Your task to perform on an android device: manage bookmarks in the chrome app Image 0: 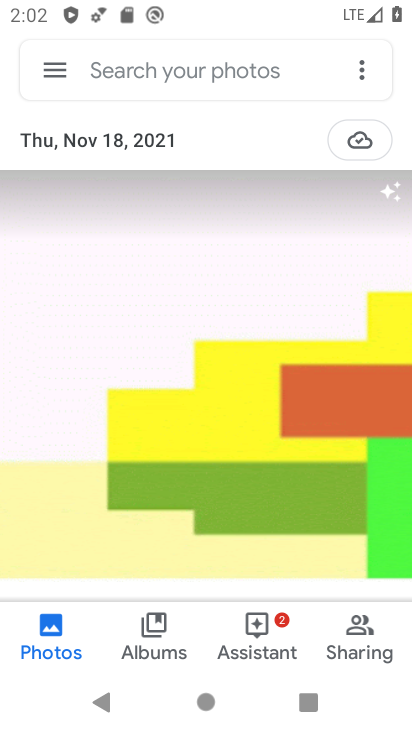
Step 0: press home button
Your task to perform on an android device: manage bookmarks in the chrome app Image 1: 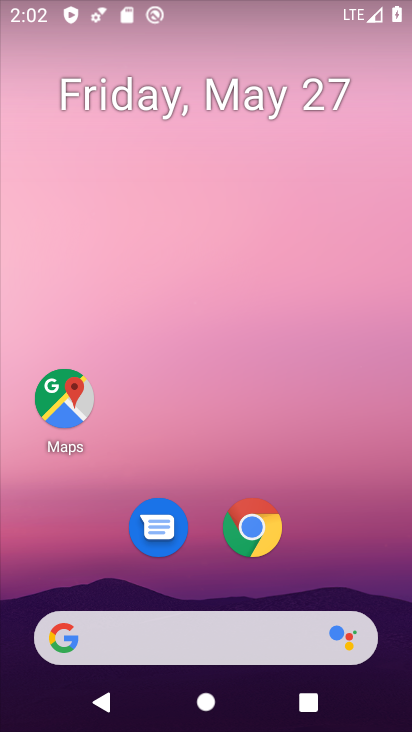
Step 1: click (255, 526)
Your task to perform on an android device: manage bookmarks in the chrome app Image 2: 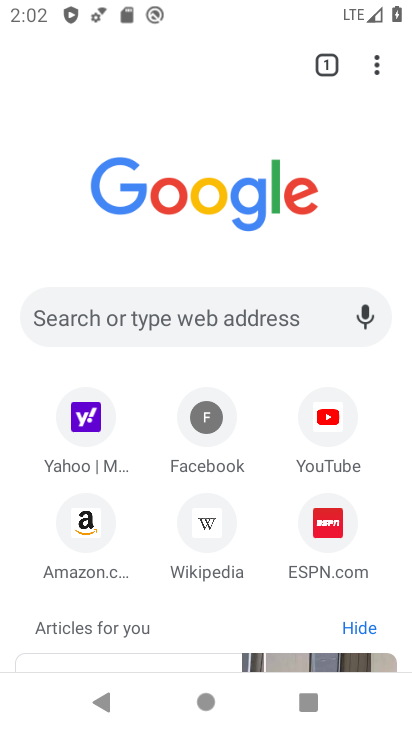
Step 2: click (374, 58)
Your task to perform on an android device: manage bookmarks in the chrome app Image 3: 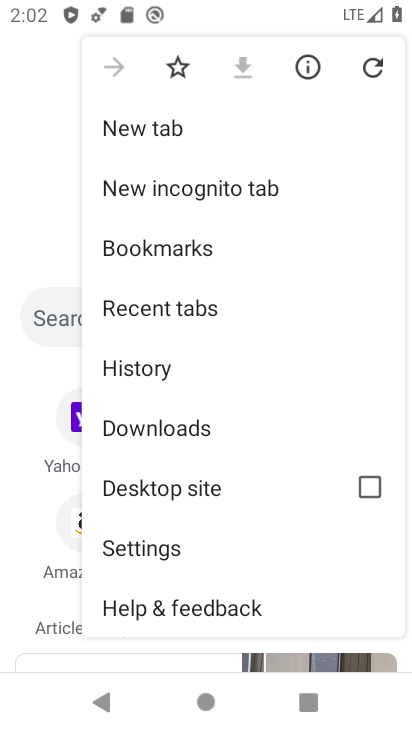
Step 3: click (225, 254)
Your task to perform on an android device: manage bookmarks in the chrome app Image 4: 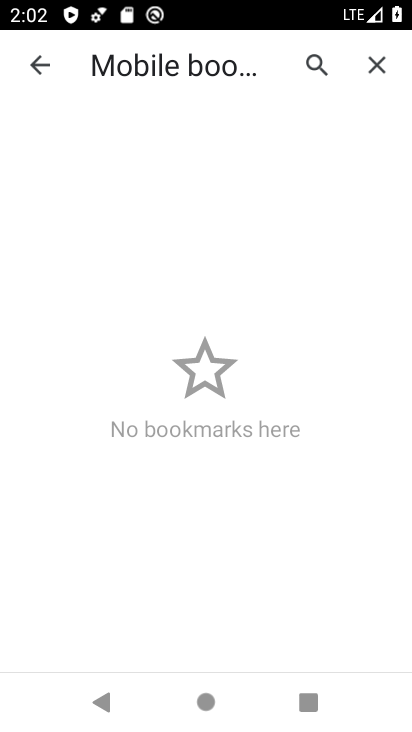
Step 4: task complete